Your task to perform on an android device: open app "Truecaller" (install if not already installed) Image 0: 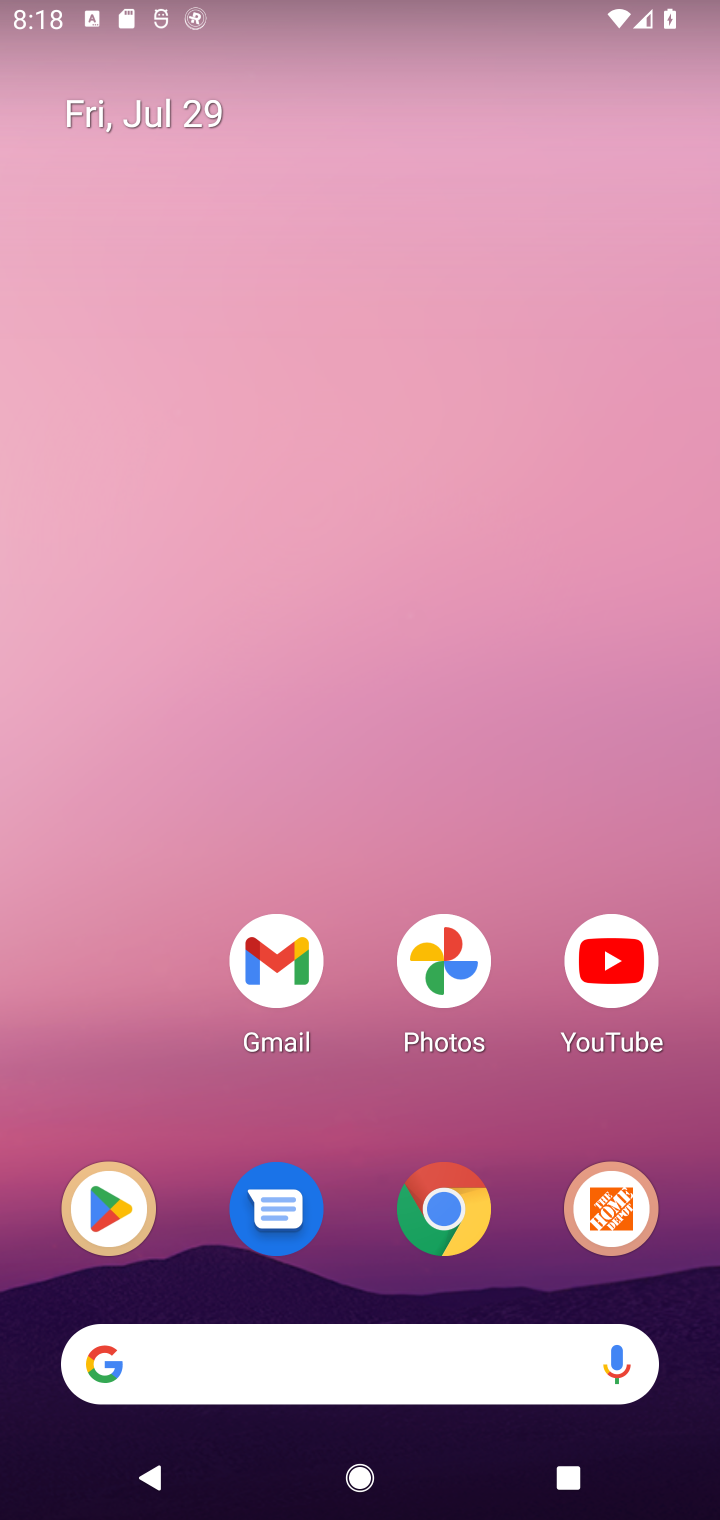
Step 0: click (107, 1209)
Your task to perform on an android device: open app "Truecaller" (install if not already installed) Image 1: 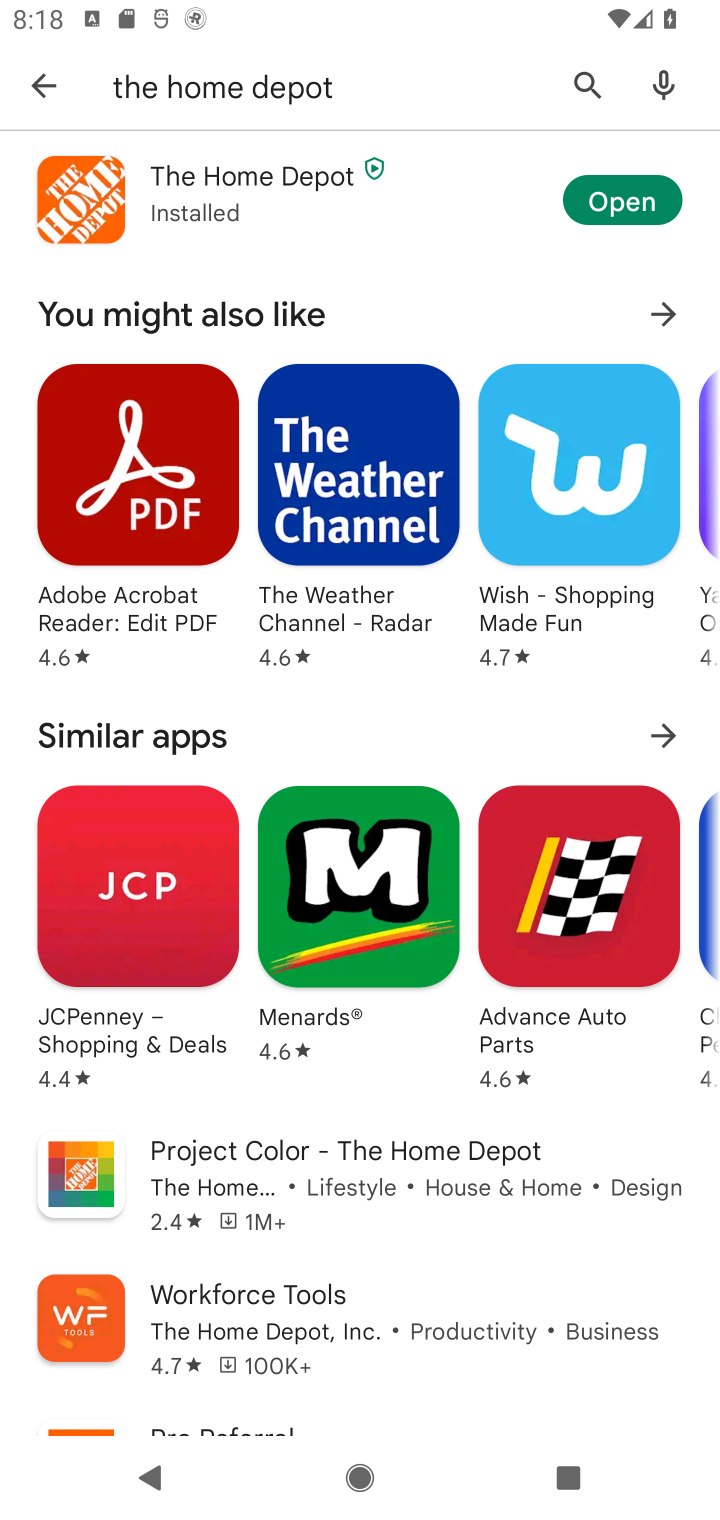
Step 1: click (582, 91)
Your task to perform on an android device: open app "Truecaller" (install if not already installed) Image 2: 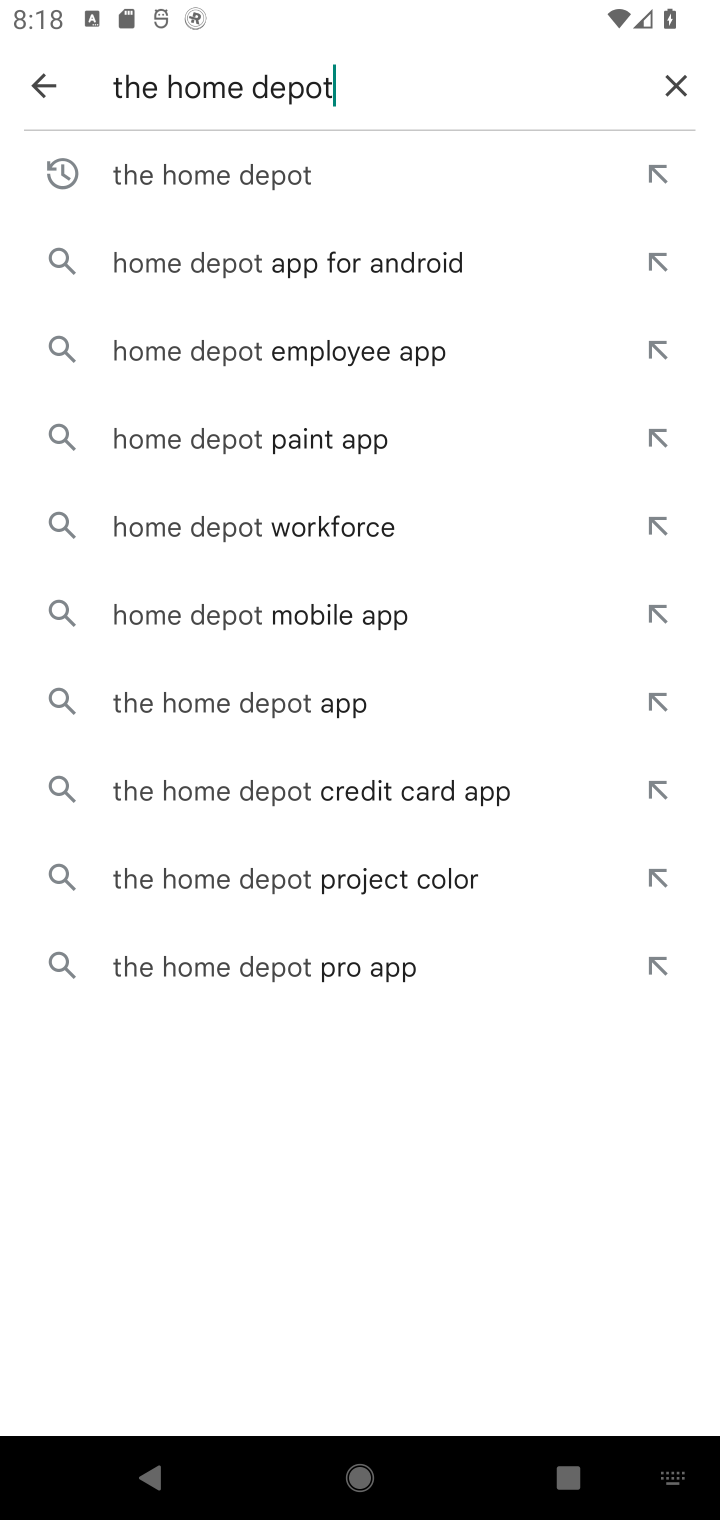
Step 2: click (669, 91)
Your task to perform on an android device: open app "Truecaller" (install if not already installed) Image 3: 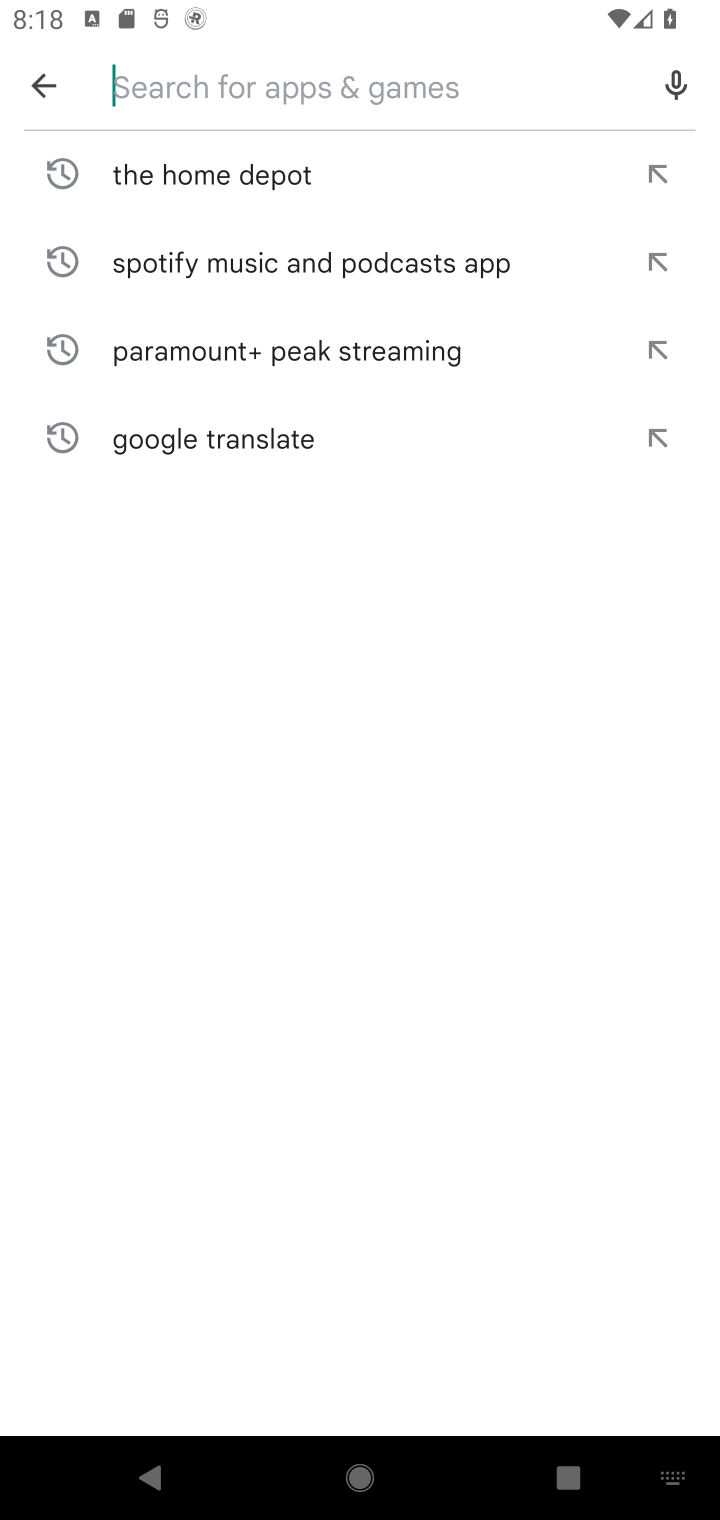
Step 3: type "Truecaller"
Your task to perform on an android device: open app "Truecaller" (install if not already installed) Image 4: 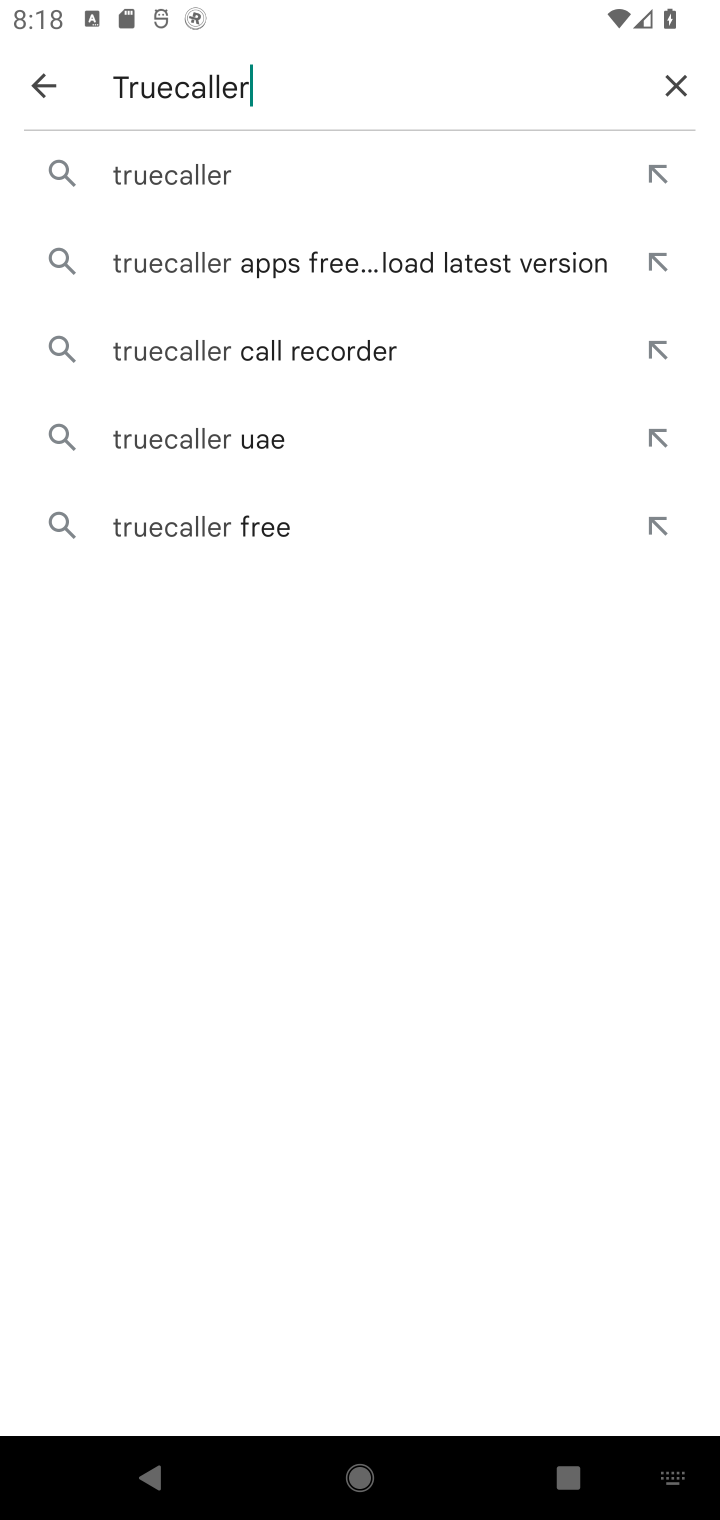
Step 4: click (156, 176)
Your task to perform on an android device: open app "Truecaller" (install if not already installed) Image 5: 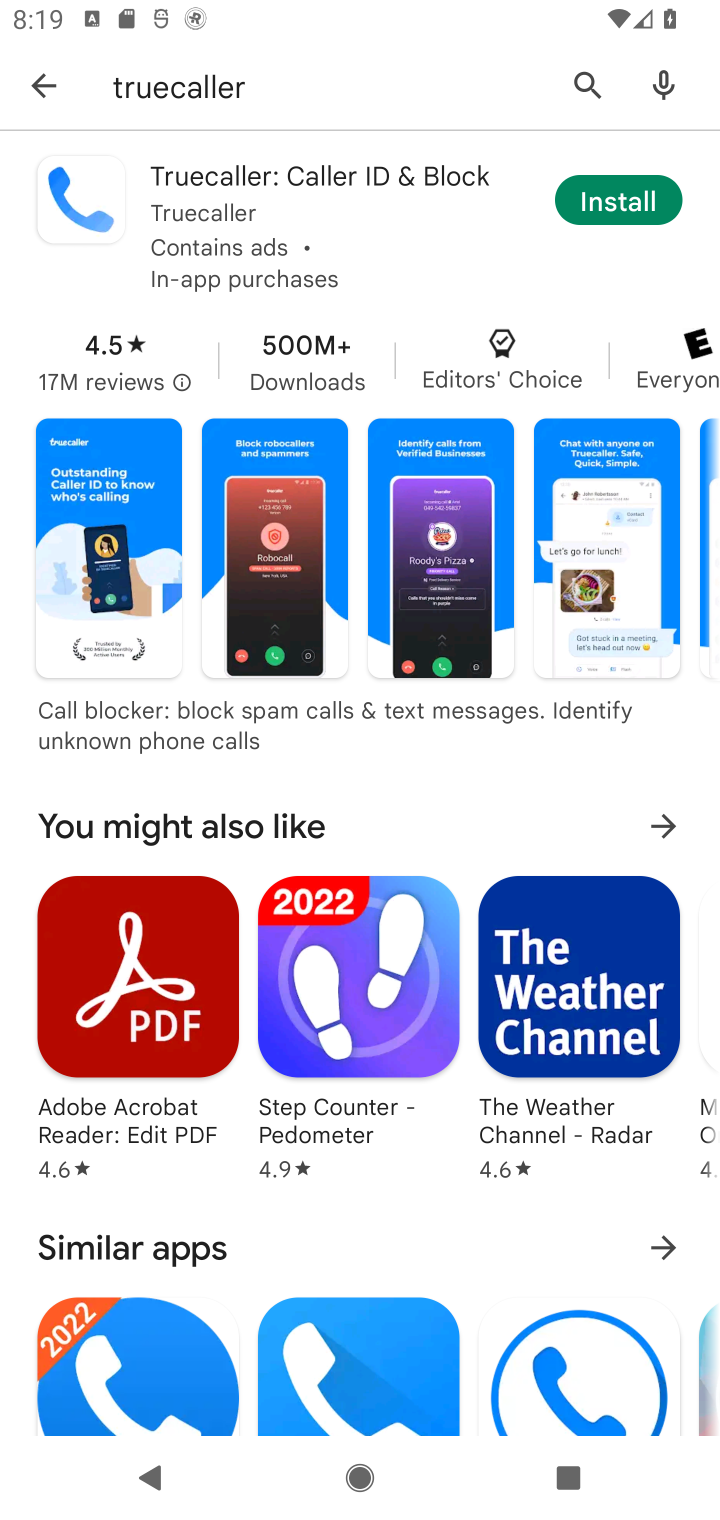
Step 5: click (597, 201)
Your task to perform on an android device: open app "Truecaller" (install if not already installed) Image 6: 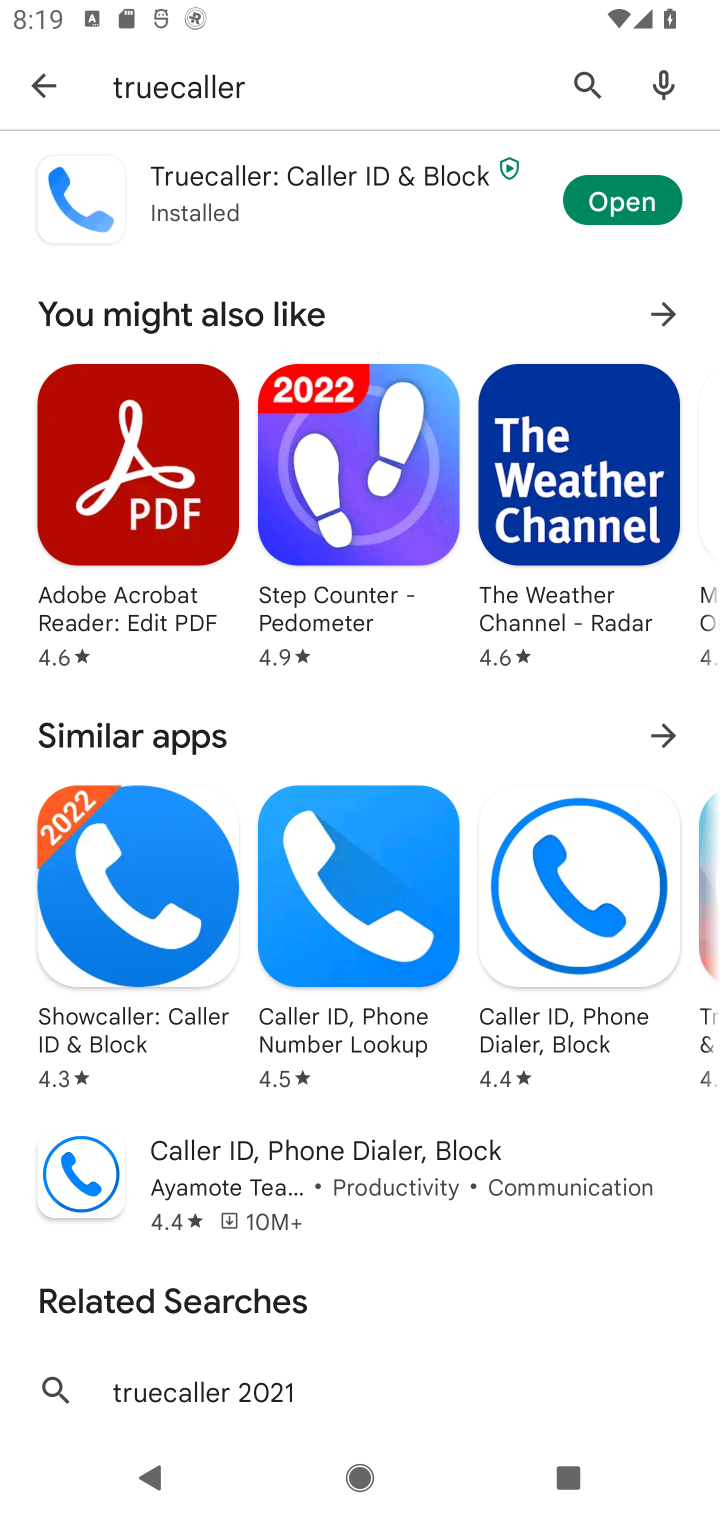
Step 6: click (627, 219)
Your task to perform on an android device: open app "Truecaller" (install if not already installed) Image 7: 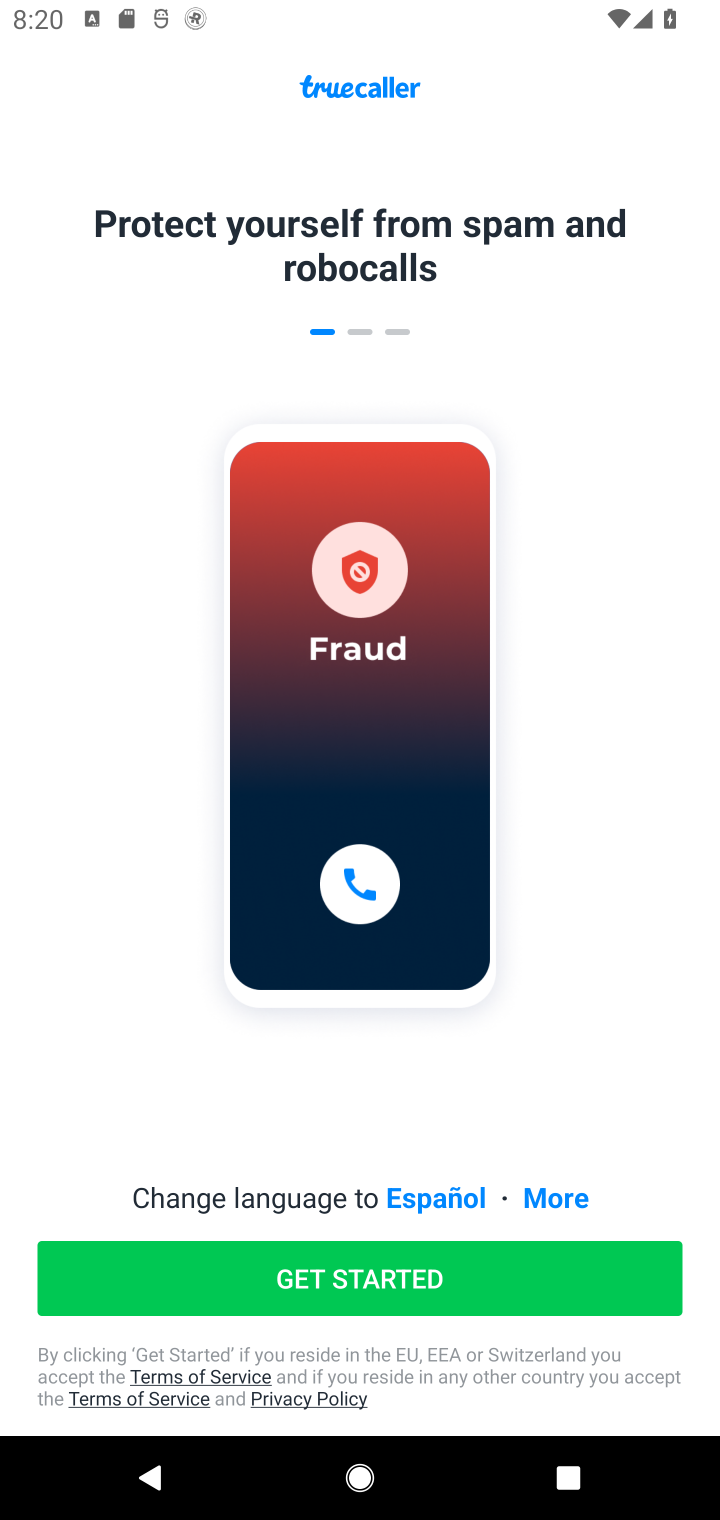
Step 7: task complete